Your task to perform on an android device: turn notification dots on Image 0: 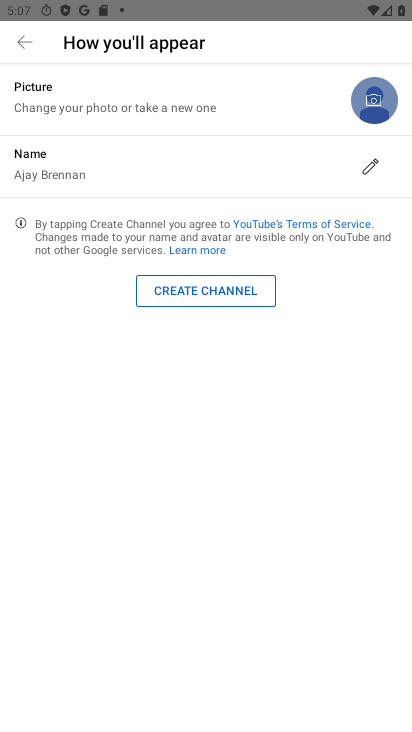
Step 0: press home button
Your task to perform on an android device: turn notification dots on Image 1: 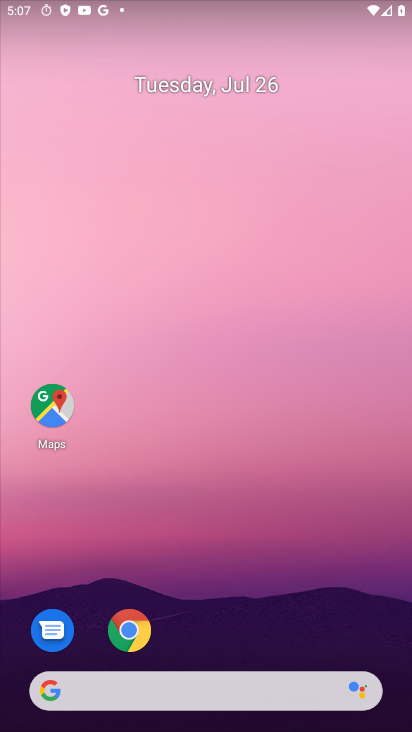
Step 1: drag from (321, 605) to (299, 60)
Your task to perform on an android device: turn notification dots on Image 2: 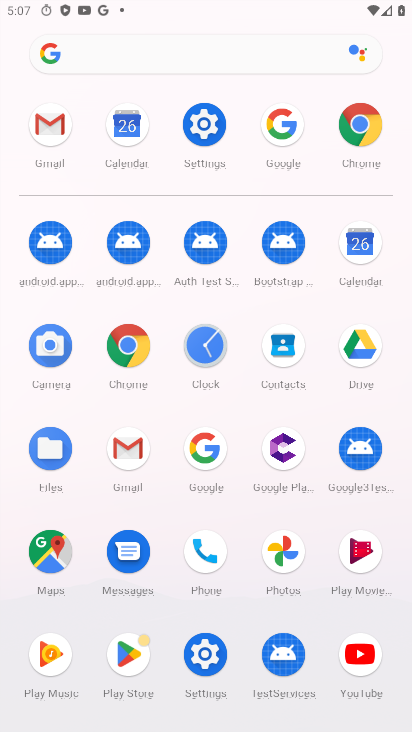
Step 2: click (193, 127)
Your task to perform on an android device: turn notification dots on Image 3: 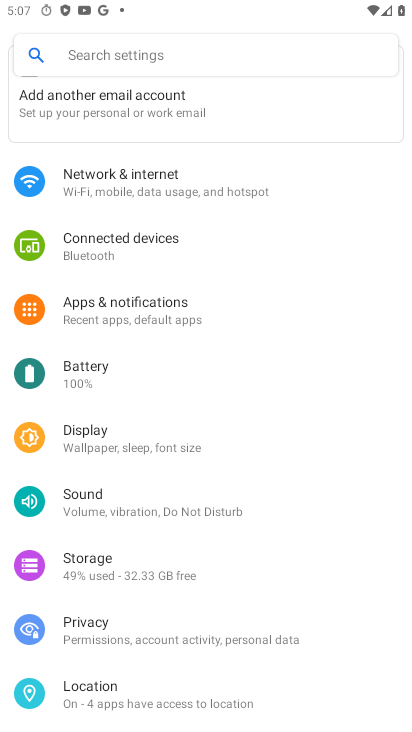
Step 3: click (144, 311)
Your task to perform on an android device: turn notification dots on Image 4: 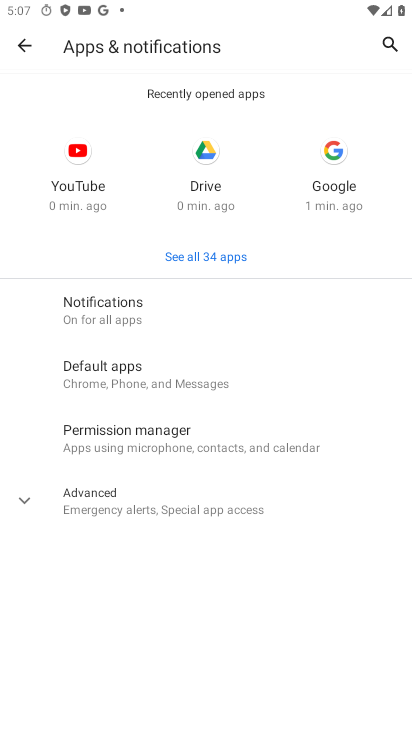
Step 4: click (127, 311)
Your task to perform on an android device: turn notification dots on Image 5: 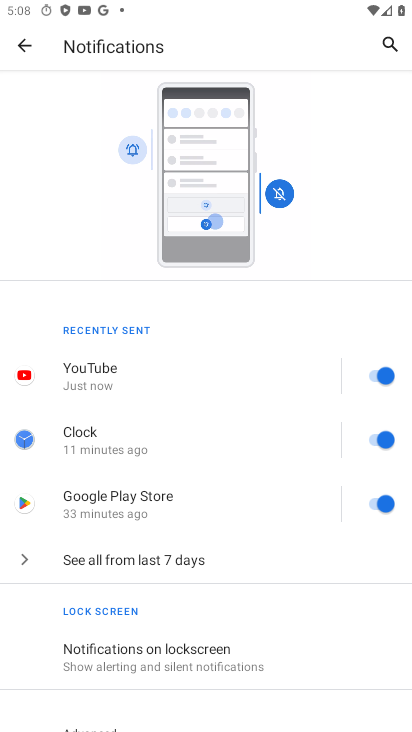
Step 5: drag from (301, 657) to (304, 229)
Your task to perform on an android device: turn notification dots on Image 6: 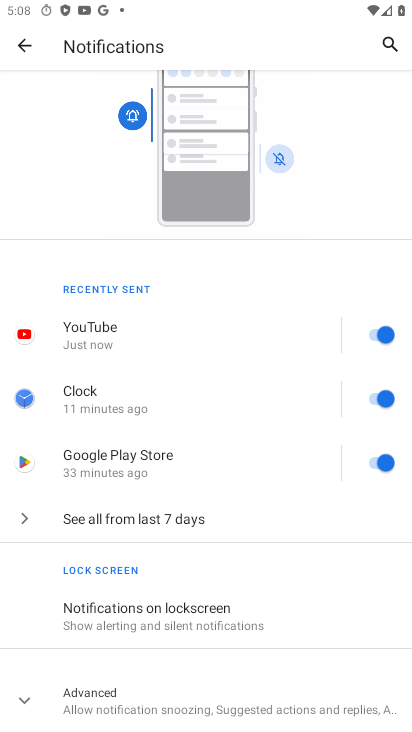
Step 6: click (147, 689)
Your task to perform on an android device: turn notification dots on Image 7: 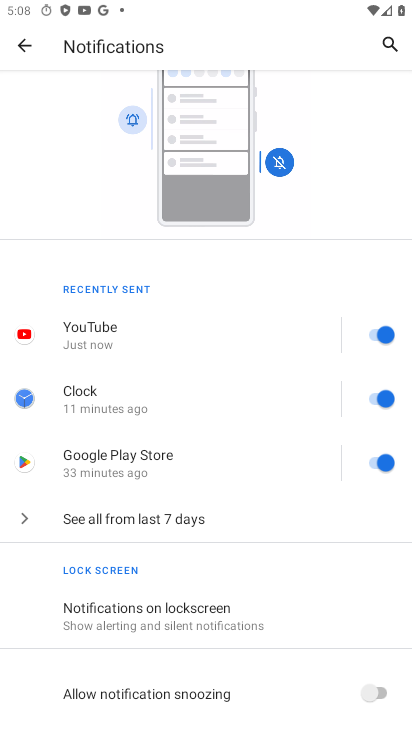
Step 7: task complete